Your task to perform on an android device: toggle priority inbox in the gmail app Image 0: 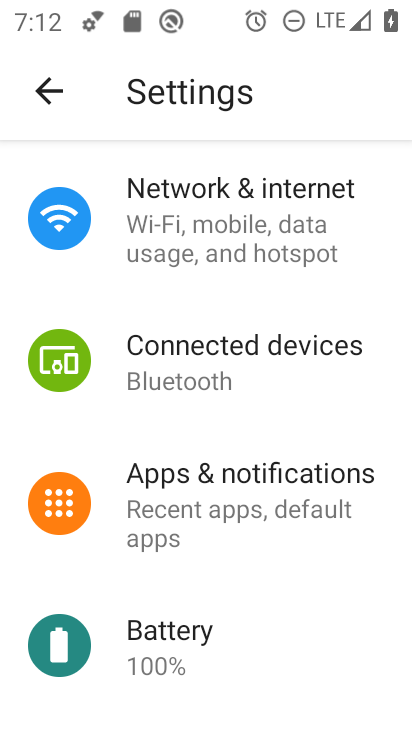
Step 0: press home button
Your task to perform on an android device: toggle priority inbox in the gmail app Image 1: 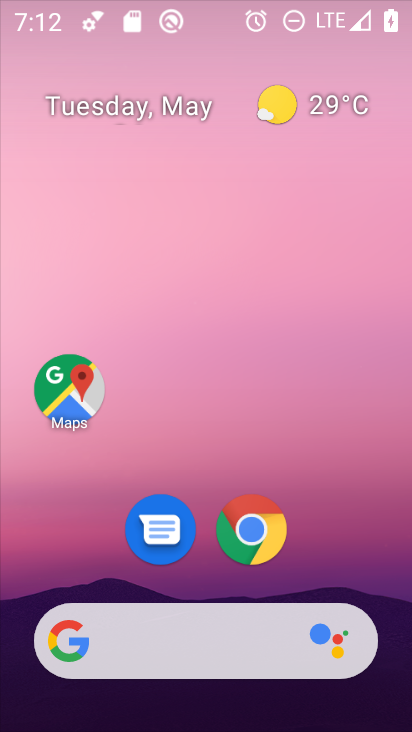
Step 1: drag from (385, 652) to (229, 43)
Your task to perform on an android device: toggle priority inbox in the gmail app Image 2: 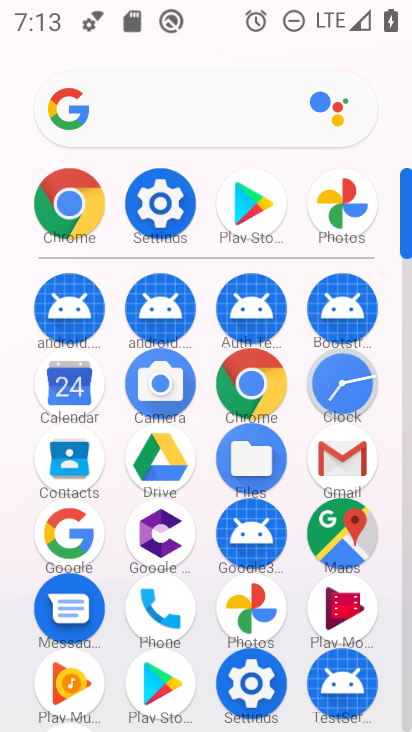
Step 2: click (354, 464)
Your task to perform on an android device: toggle priority inbox in the gmail app Image 3: 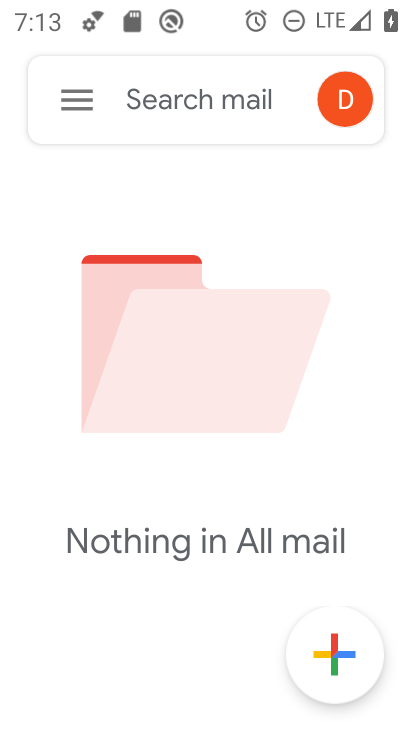
Step 3: click (73, 102)
Your task to perform on an android device: toggle priority inbox in the gmail app Image 4: 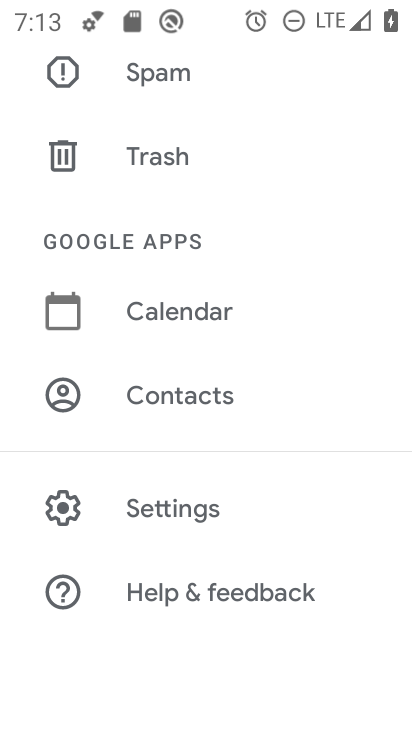
Step 4: click (217, 524)
Your task to perform on an android device: toggle priority inbox in the gmail app Image 5: 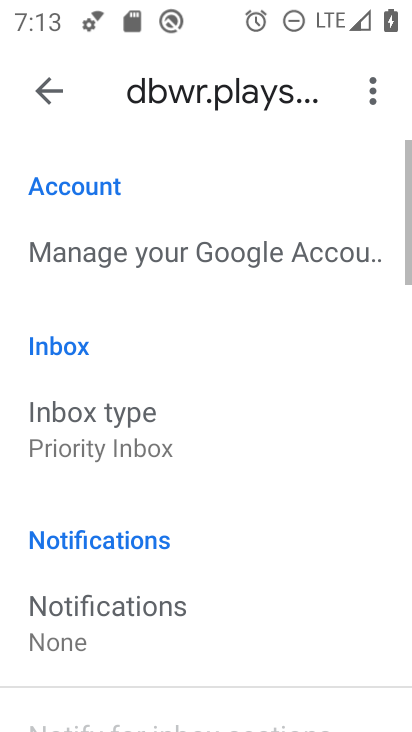
Step 5: click (144, 432)
Your task to perform on an android device: toggle priority inbox in the gmail app Image 6: 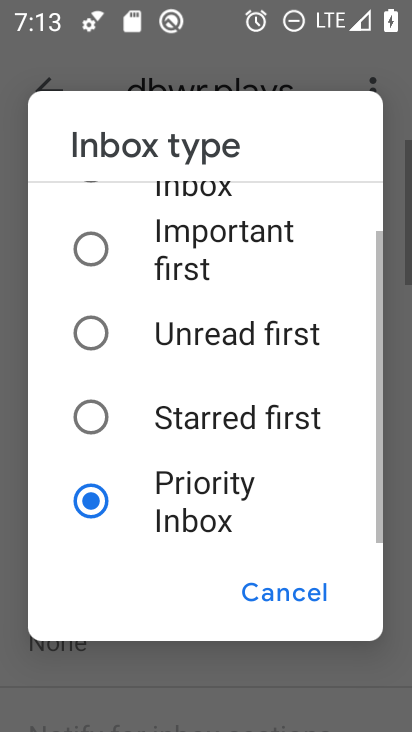
Step 6: drag from (113, 223) to (119, 589)
Your task to perform on an android device: toggle priority inbox in the gmail app Image 7: 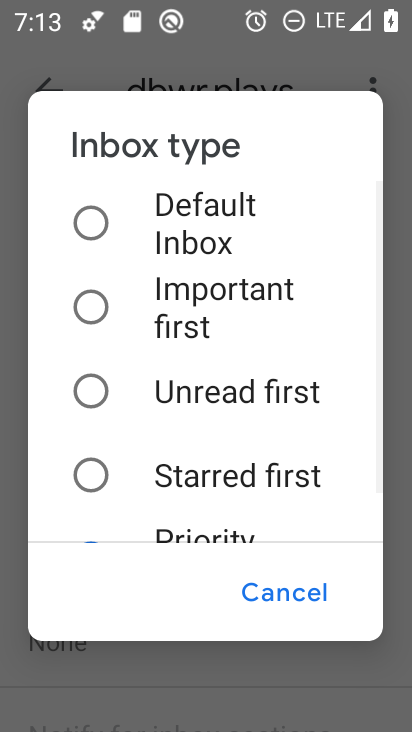
Step 7: click (84, 218)
Your task to perform on an android device: toggle priority inbox in the gmail app Image 8: 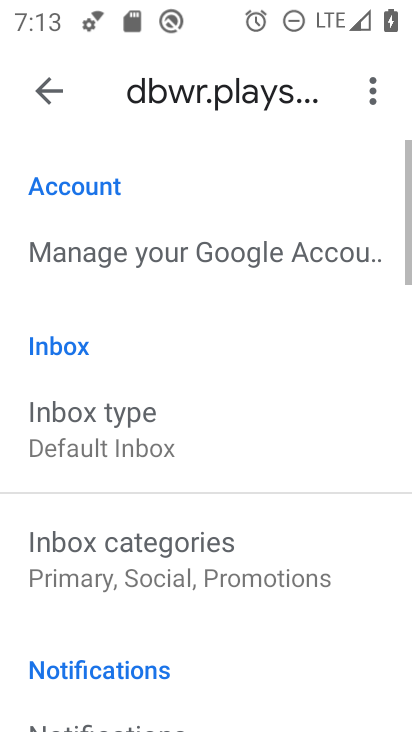
Step 8: task complete